Your task to perform on an android device: Do I have any events this weekend? Image 0: 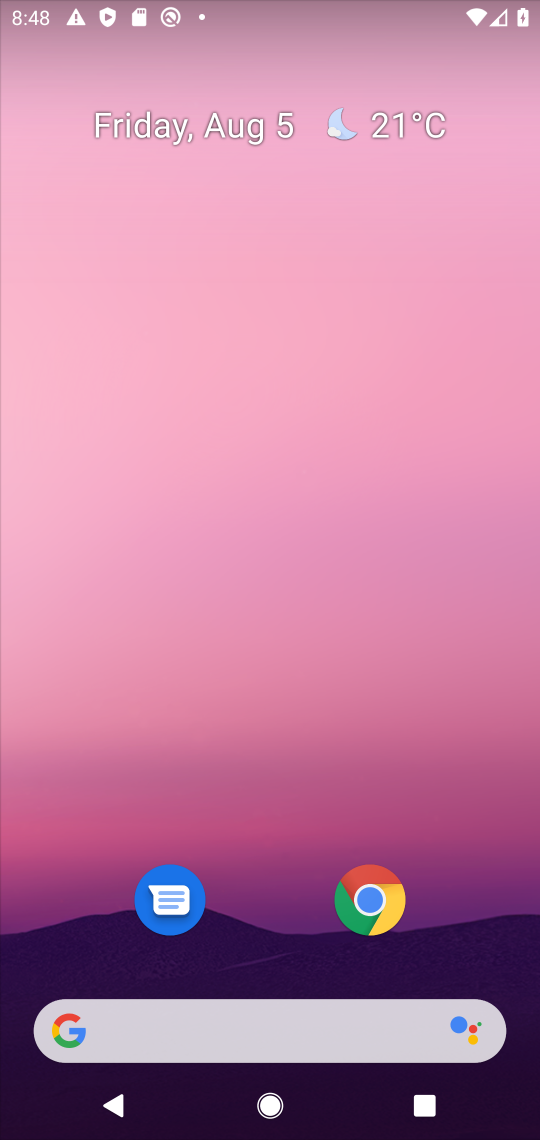
Step 0: press home button
Your task to perform on an android device: Do I have any events this weekend? Image 1: 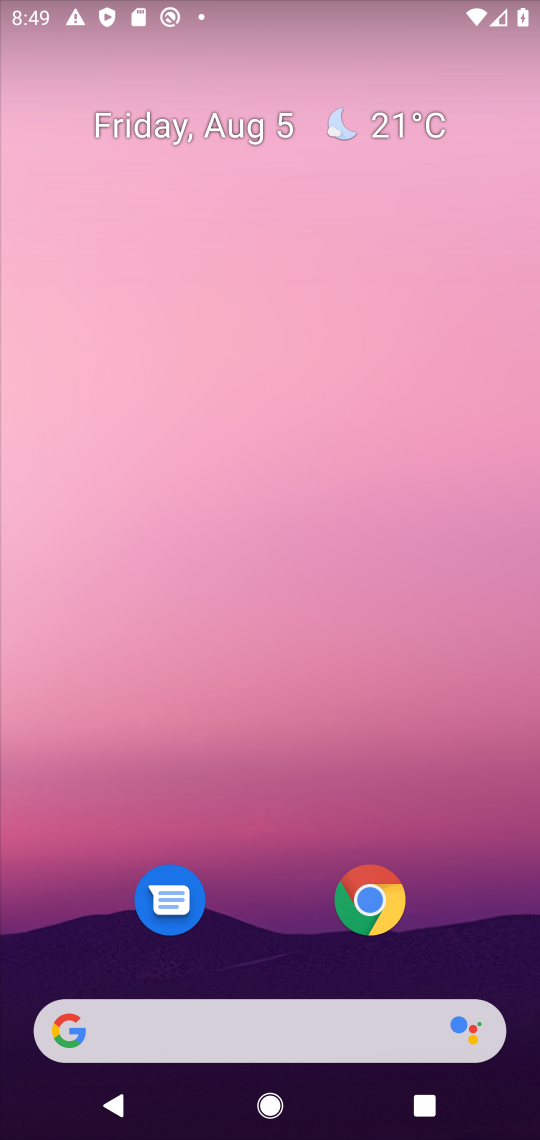
Step 1: drag from (284, 868) to (175, 70)
Your task to perform on an android device: Do I have any events this weekend? Image 2: 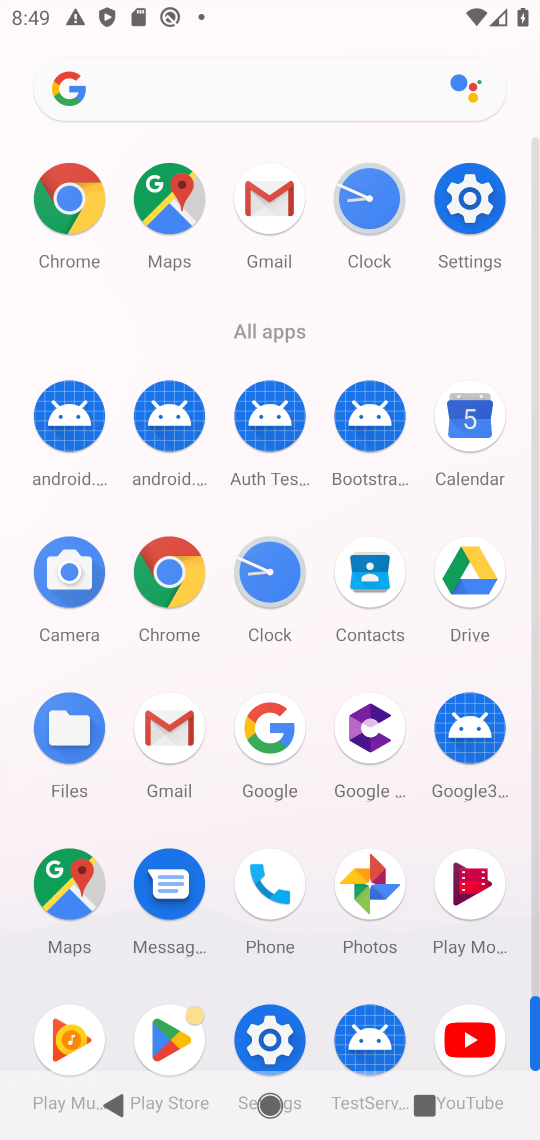
Step 2: click (478, 436)
Your task to perform on an android device: Do I have any events this weekend? Image 3: 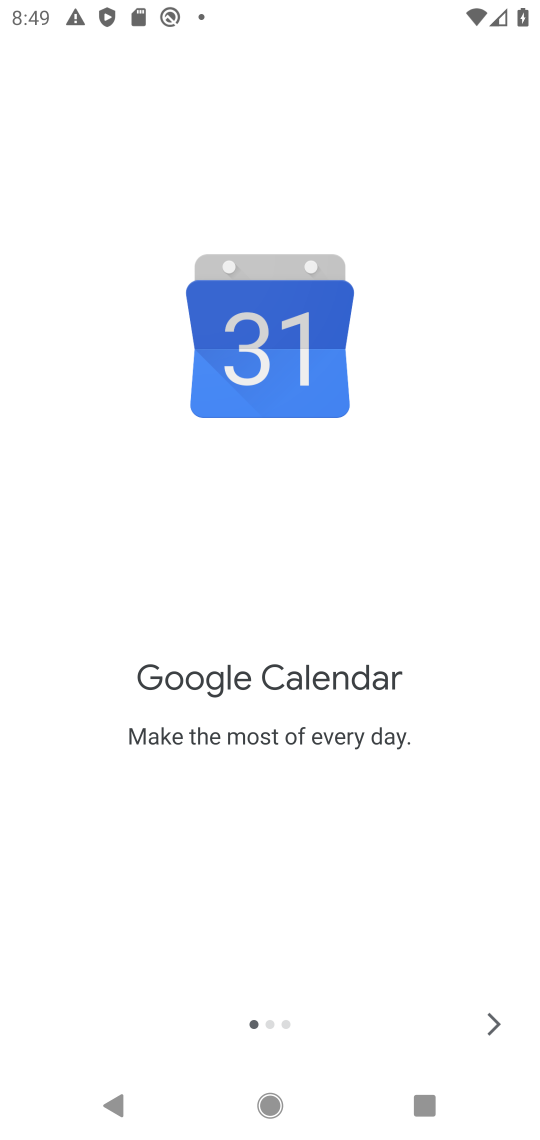
Step 3: click (494, 1014)
Your task to perform on an android device: Do I have any events this weekend? Image 4: 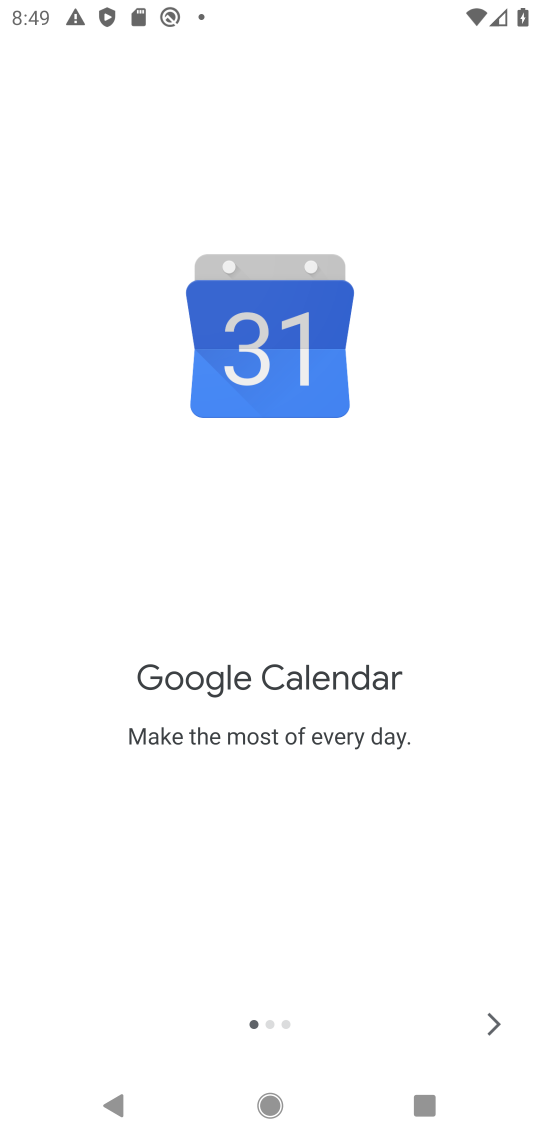
Step 4: click (494, 1014)
Your task to perform on an android device: Do I have any events this weekend? Image 5: 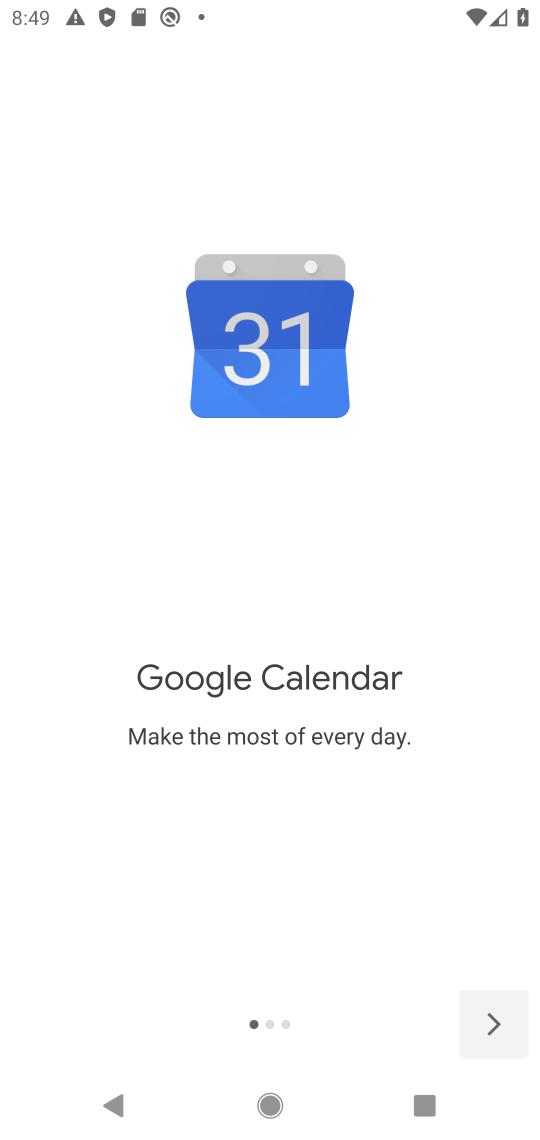
Step 5: click (494, 1014)
Your task to perform on an android device: Do I have any events this weekend? Image 6: 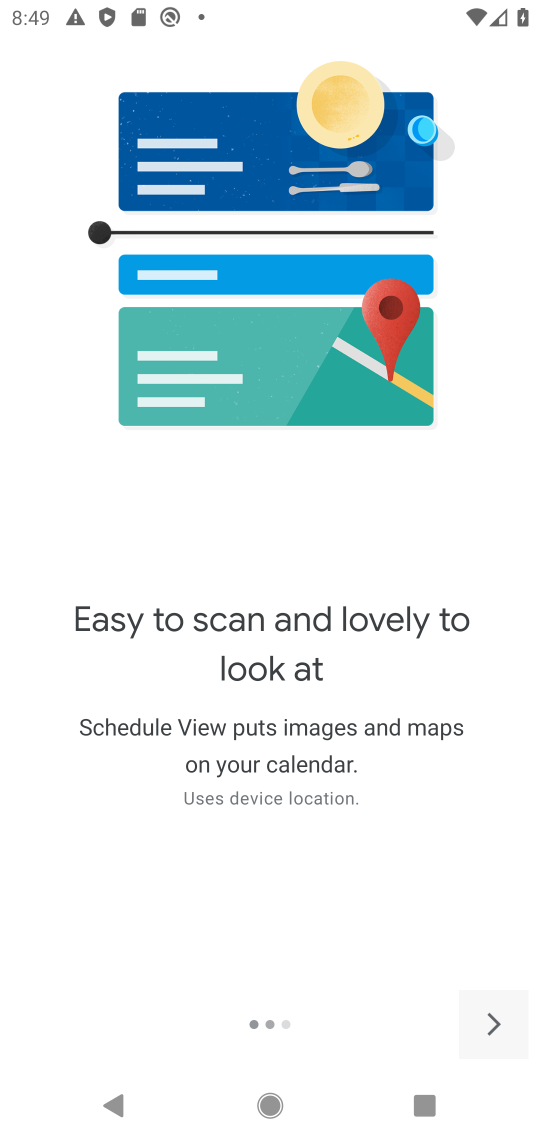
Step 6: click (494, 1014)
Your task to perform on an android device: Do I have any events this weekend? Image 7: 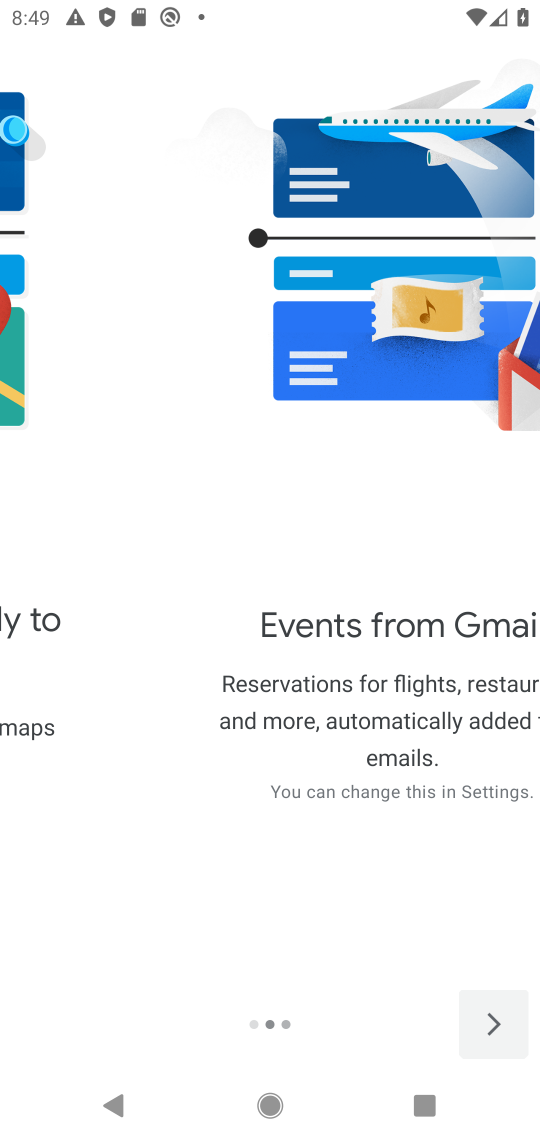
Step 7: click (494, 1014)
Your task to perform on an android device: Do I have any events this weekend? Image 8: 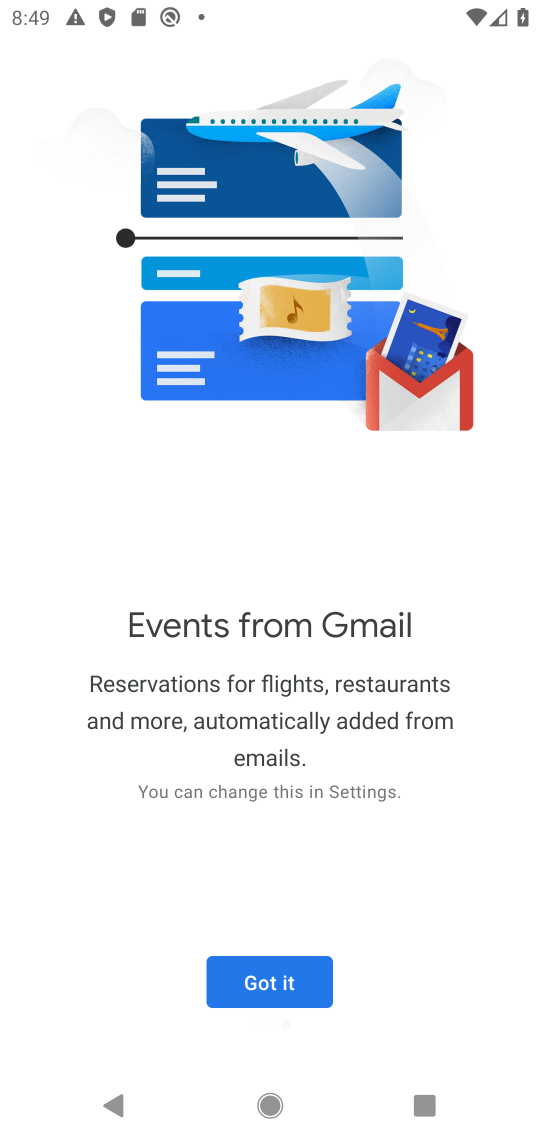
Step 8: click (494, 1014)
Your task to perform on an android device: Do I have any events this weekend? Image 9: 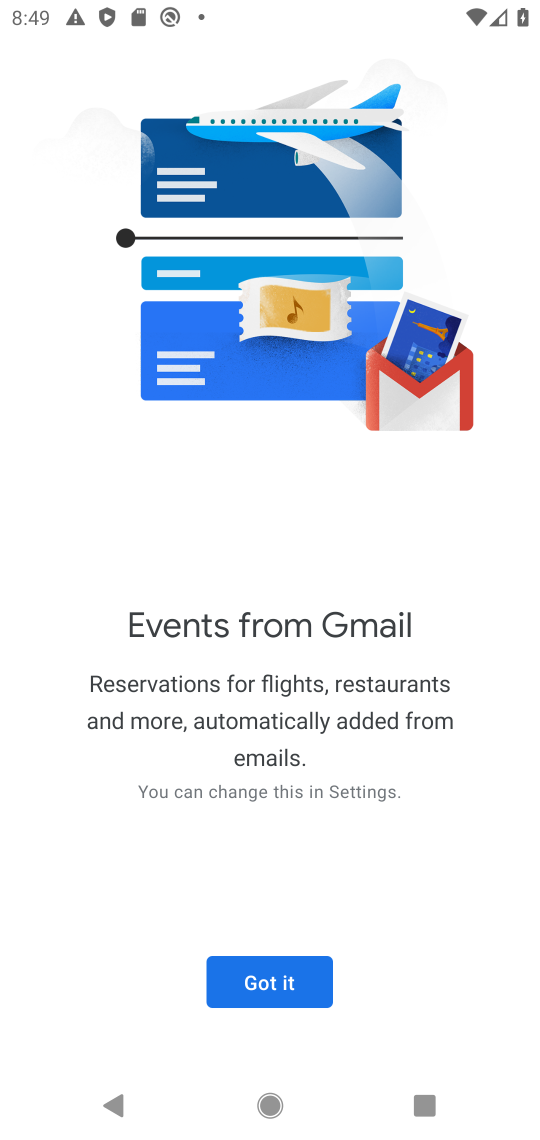
Step 9: click (254, 972)
Your task to perform on an android device: Do I have any events this weekend? Image 10: 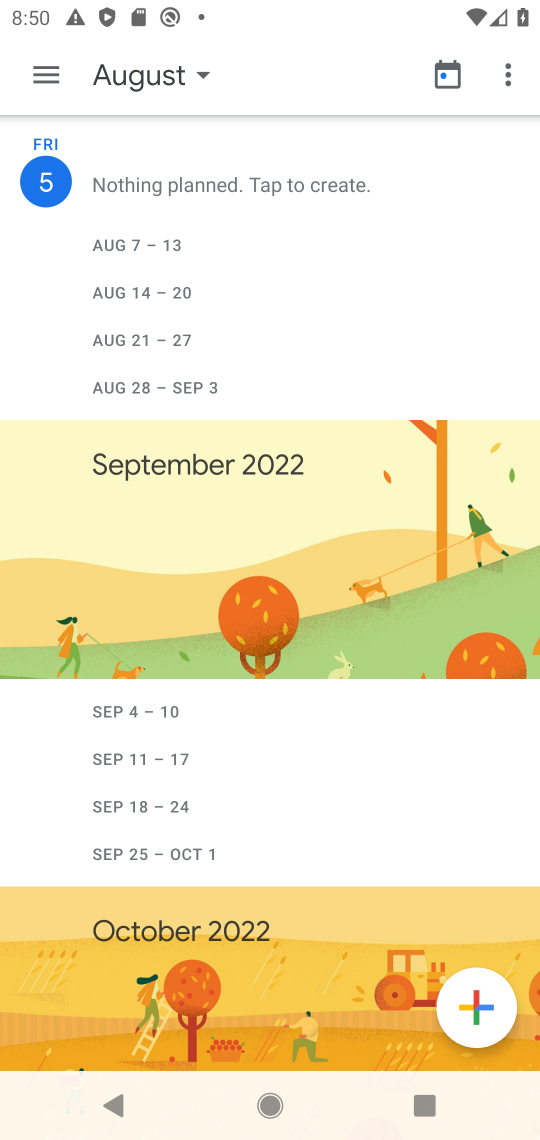
Step 10: click (199, 76)
Your task to perform on an android device: Do I have any events this weekend? Image 11: 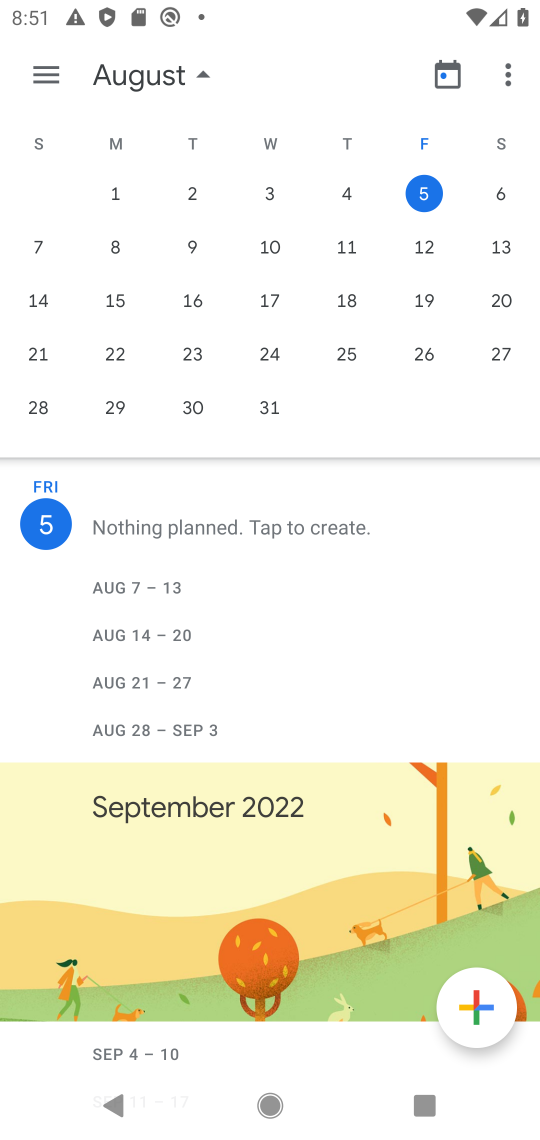
Step 11: click (494, 197)
Your task to perform on an android device: Do I have any events this weekend? Image 12: 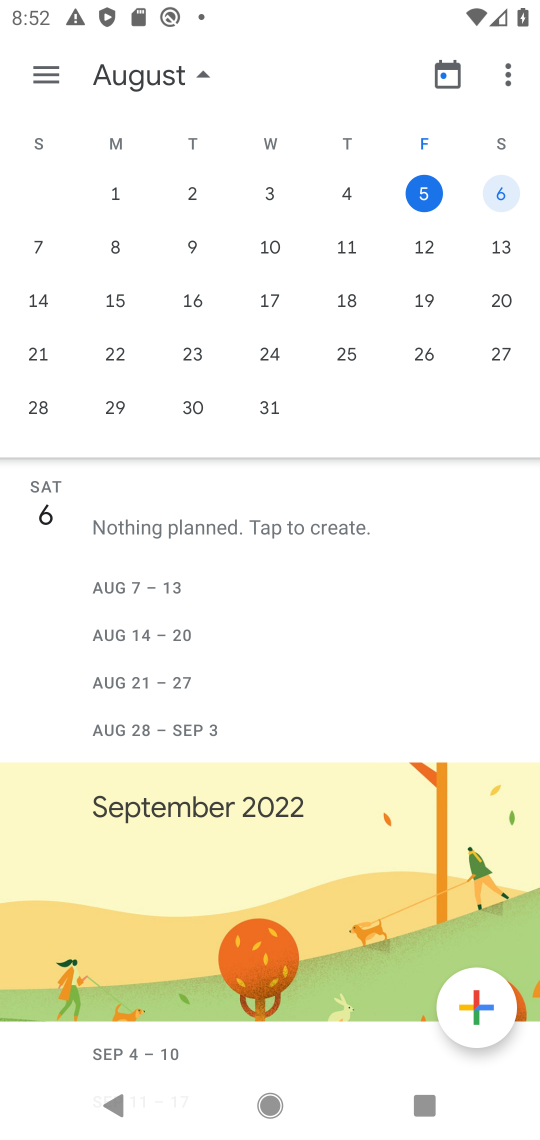
Step 12: task complete